Your task to perform on an android device: empty trash in the gmail app Image 0: 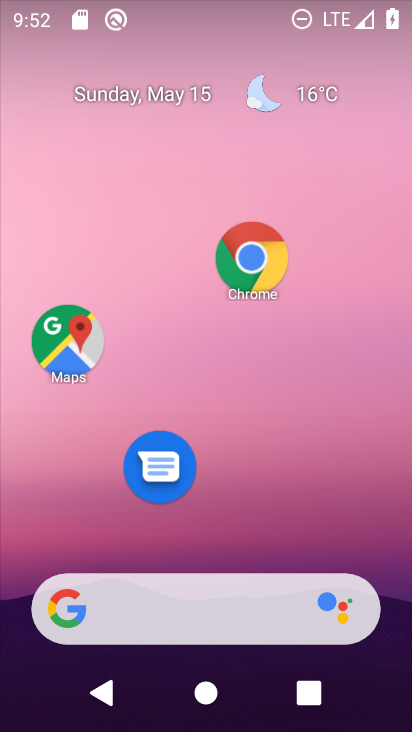
Step 0: drag from (192, 539) to (177, 222)
Your task to perform on an android device: empty trash in the gmail app Image 1: 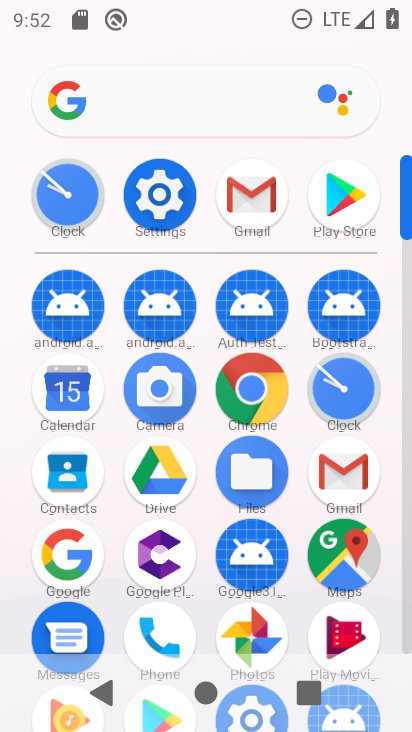
Step 1: click (258, 175)
Your task to perform on an android device: empty trash in the gmail app Image 2: 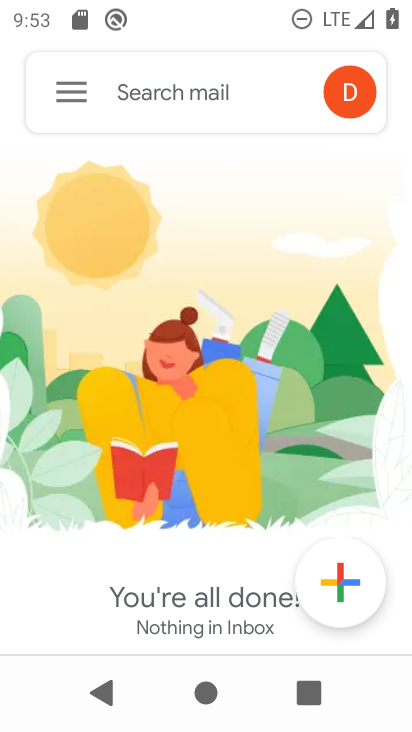
Step 2: click (43, 81)
Your task to perform on an android device: empty trash in the gmail app Image 3: 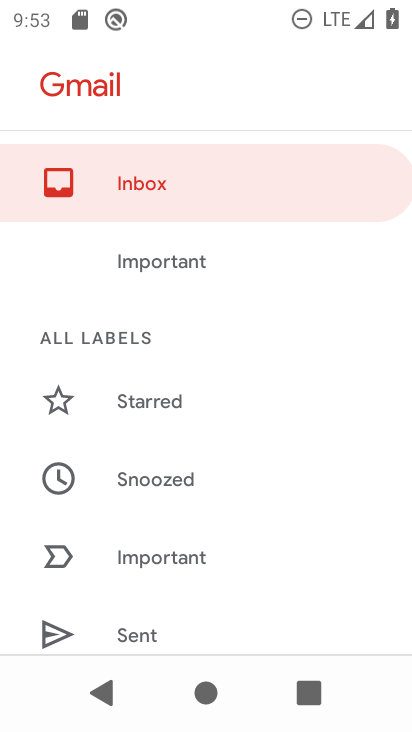
Step 3: drag from (158, 619) to (268, 44)
Your task to perform on an android device: empty trash in the gmail app Image 4: 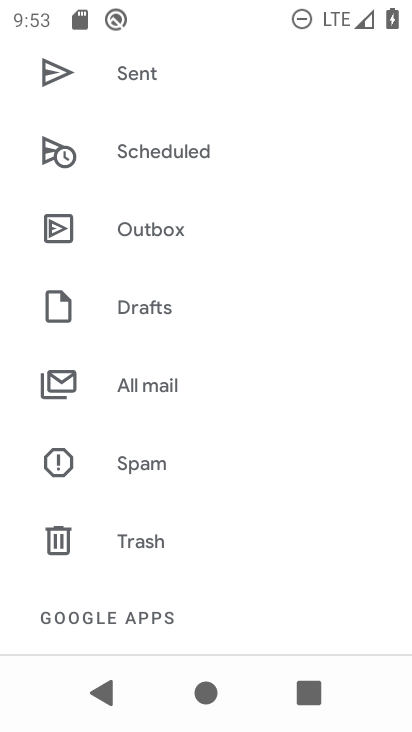
Step 4: click (66, 507)
Your task to perform on an android device: empty trash in the gmail app Image 5: 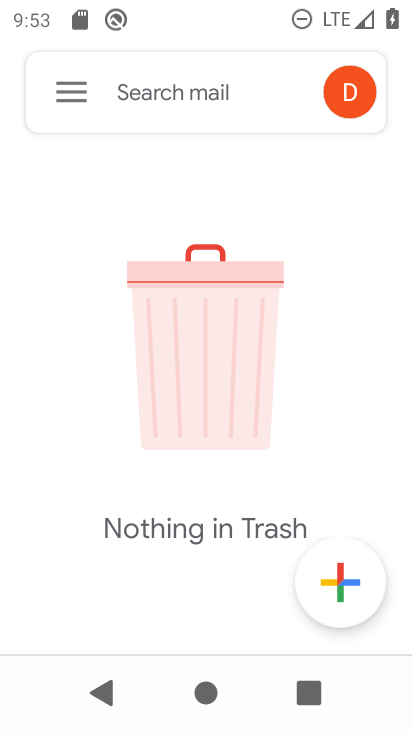
Step 5: task complete